Your task to perform on an android device: toggle sleep mode Image 0: 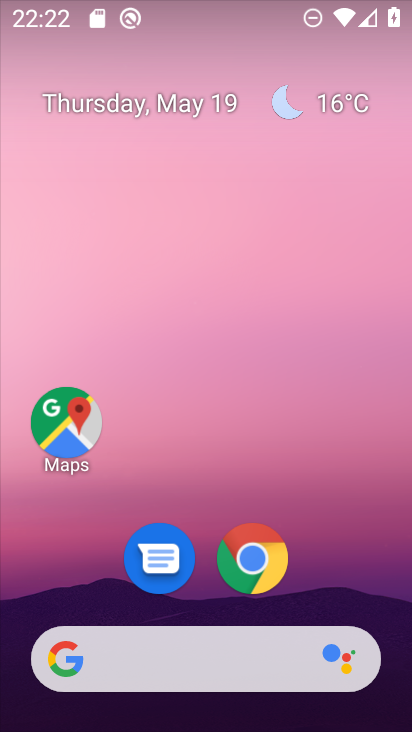
Step 0: drag from (234, 715) to (239, 138)
Your task to perform on an android device: toggle sleep mode Image 1: 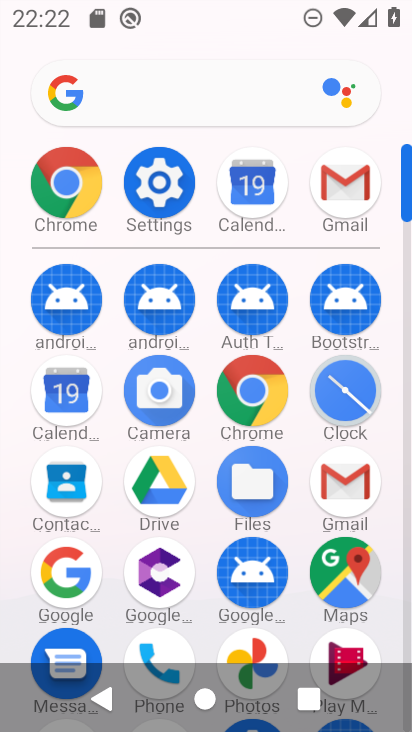
Step 1: click (166, 180)
Your task to perform on an android device: toggle sleep mode Image 2: 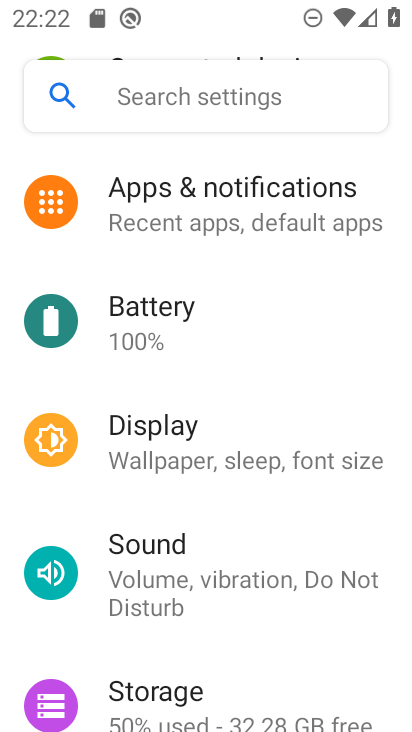
Step 2: drag from (191, 670) to (194, 207)
Your task to perform on an android device: toggle sleep mode Image 3: 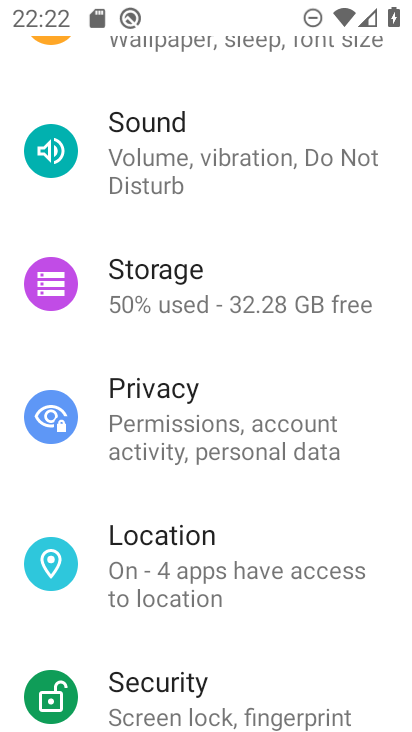
Step 3: drag from (188, 701) to (204, 270)
Your task to perform on an android device: toggle sleep mode Image 4: 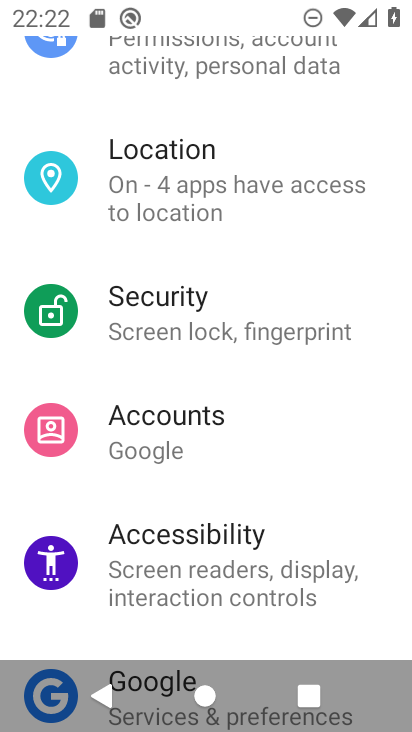
Step 4: drag from (174, 637) to (204, 128)
Your task to perform on an android device: toggle sleep mode Image 5: 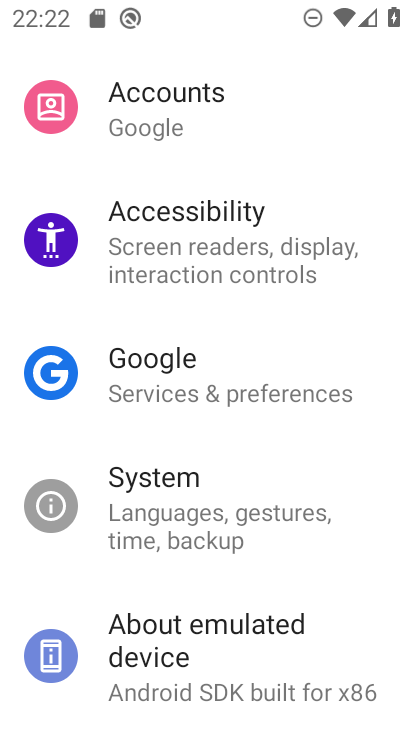
Step 5: drag from (229, 217) to (251, 515)
Your task to perform on an android device: toggle sleep mode Image 6: 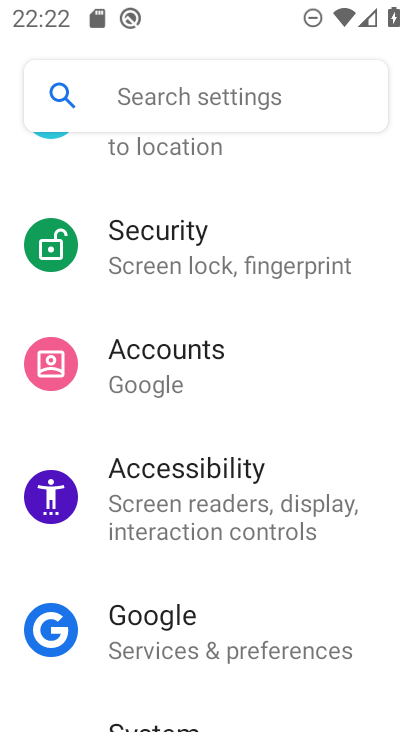
Step 6: drag from (250, 188) to (247, 549)
Your task to perform on an android device: toggle sleep mode Image 7: 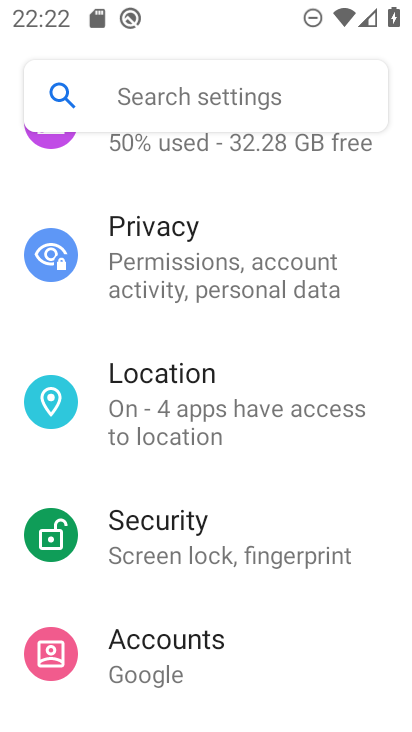
Step 7: drag from (258, 234) to (241, 503)
Your task to perform on an android device: toggle sleep mode Image 8: 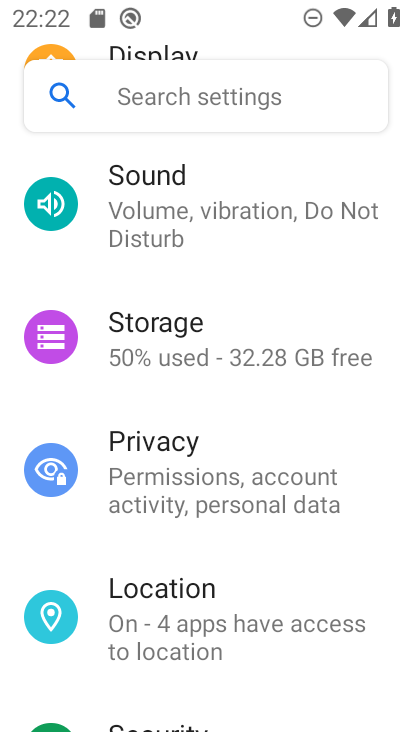
Step 8: drag from (255, 199) to (251, 538)
Your task to perform on an android device: toggle sleep mode Image 9: 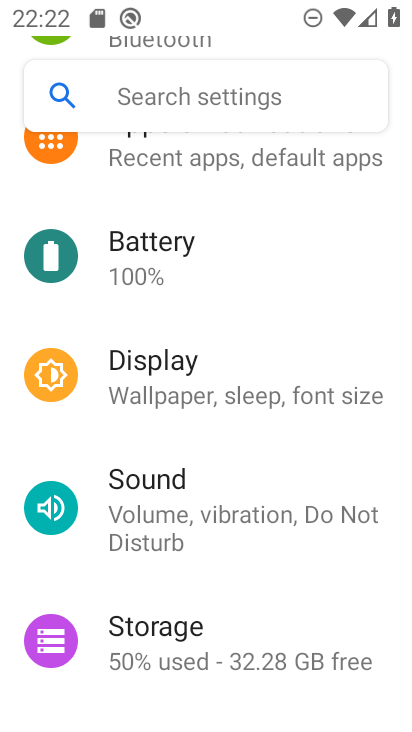
Step 9: drag from (231, 200) to (226, 466)
Your task to perform on an android device: toggle sleep mode Image 10: 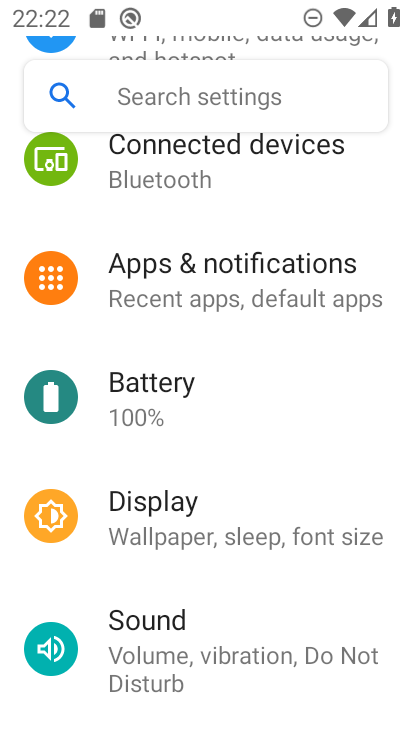
Step 10: click (189, 528)
Your task to perform on an android device: toggle sleep mode Image 11: 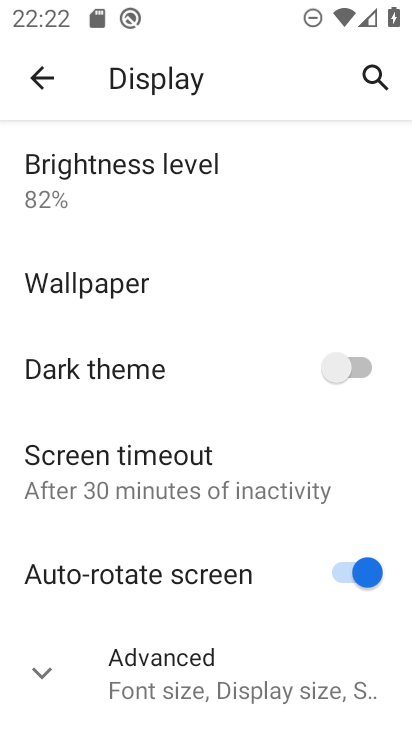
Step 11: task complete